Your task to perform on an android device: Open Yahoo.com Image 0: 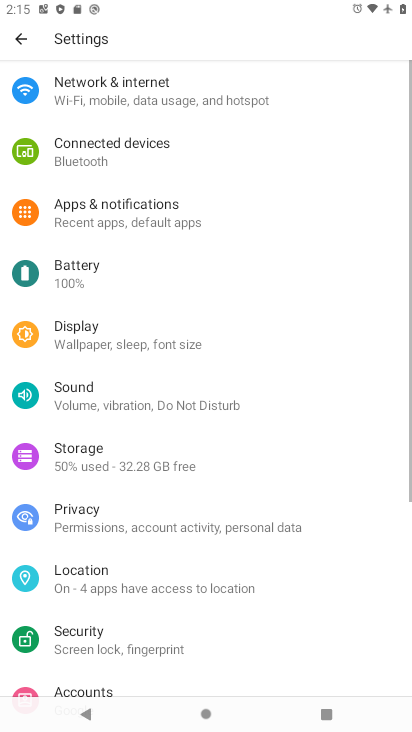
Step 0: press home button
Your task to perform on an android device: Open Yahoo.com Image 1: 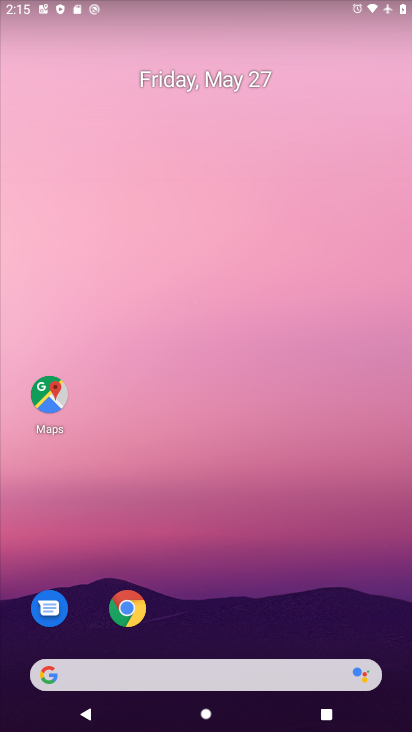
Step 1: click (130, 602)
Your task to perform on an android device: Open Yahoo.com Image 2: 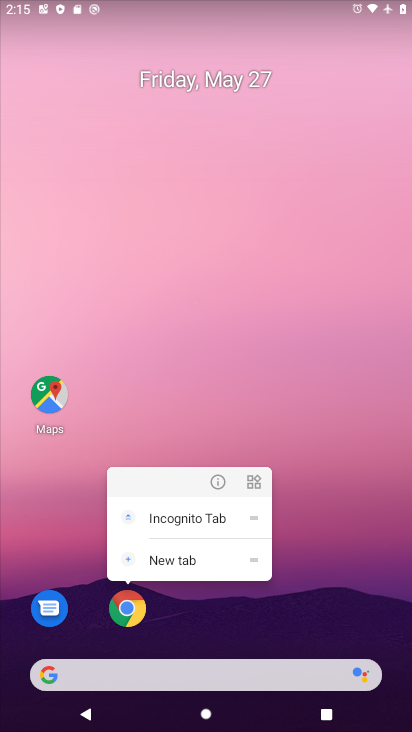
Step 2: click (128, 609)
Your task to perform on an android device: Open Yahoo.com Image 3: 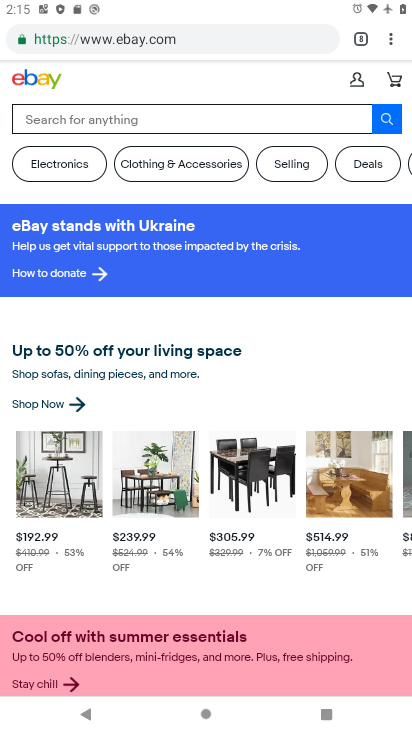
Step 3: drag from (388, 37) to (273, 71)
Your task to perform on an android device: Open Yahoo.com Image 4: 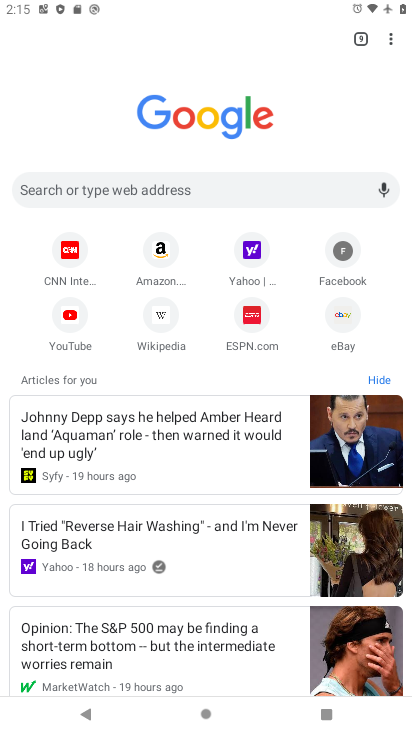
Step 4: click (248, 253)
Your task to perform on an android device: Open Yahoo.com Image 5: 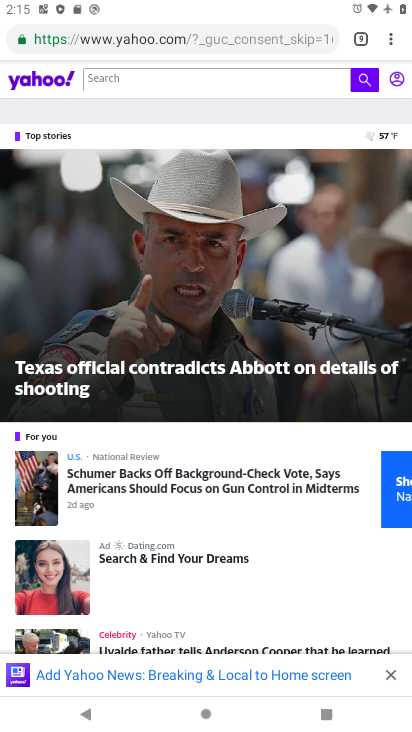
Step 5: task complete